Your task to perform on an android device: manage bookmarks in the chrome app Image 0: 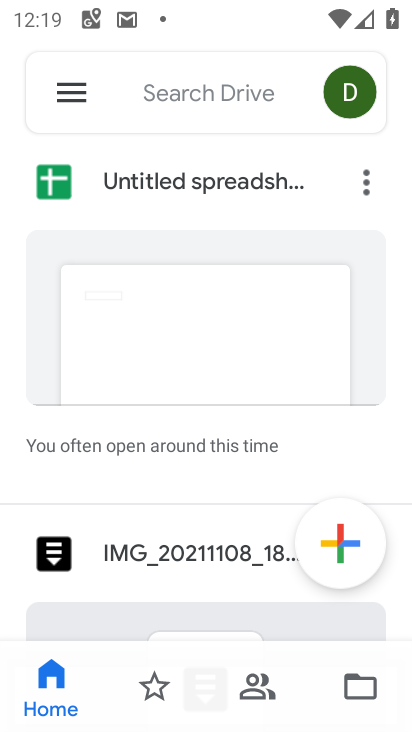
Step 0: press home button
Your task to perform on an android device: manage bookmarks in the chrome app Image 1: 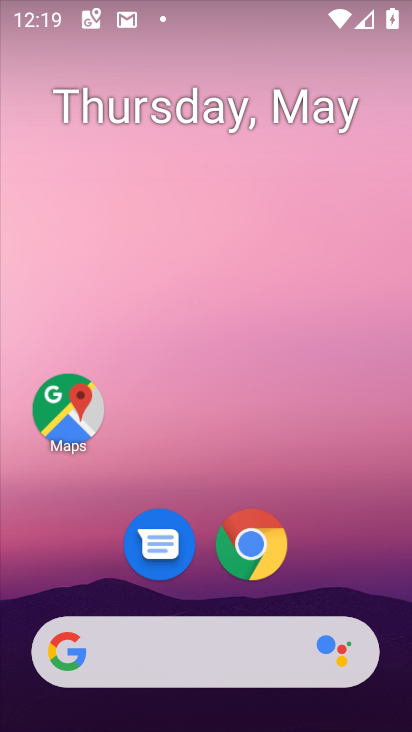
Step 1: click (225, 539)
Your task to perform on an android device: manage bookmarks in the chrome app Image 2: 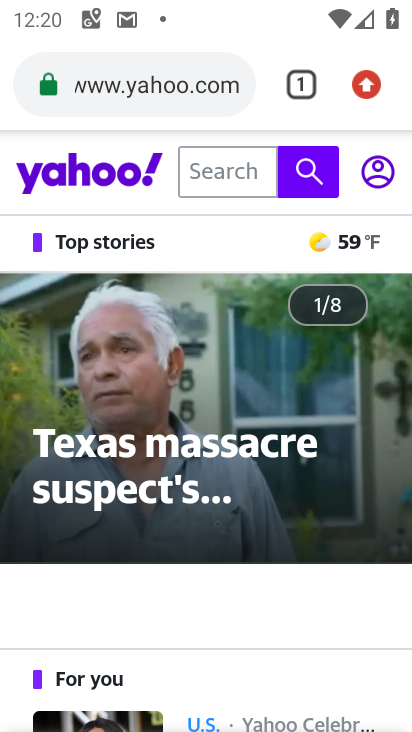
Step 2: click (371, 81)
Your task to perform on an android device: manage bookmarks in the chrome app Image 3: 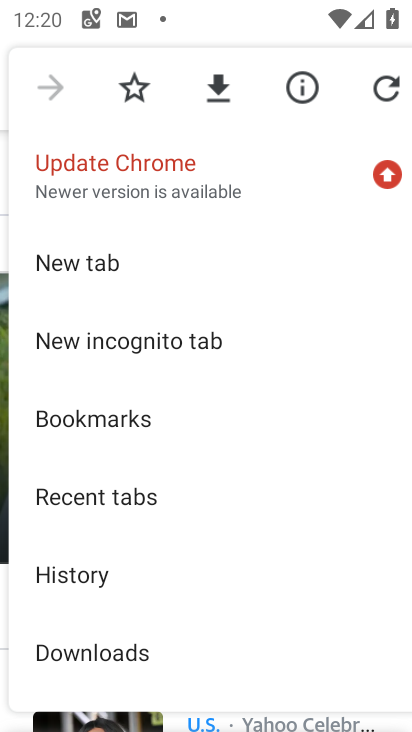
Step 3: click (242, 416)
Your task to perform on an android device: manage bookmarks in the chrome app Image 4: 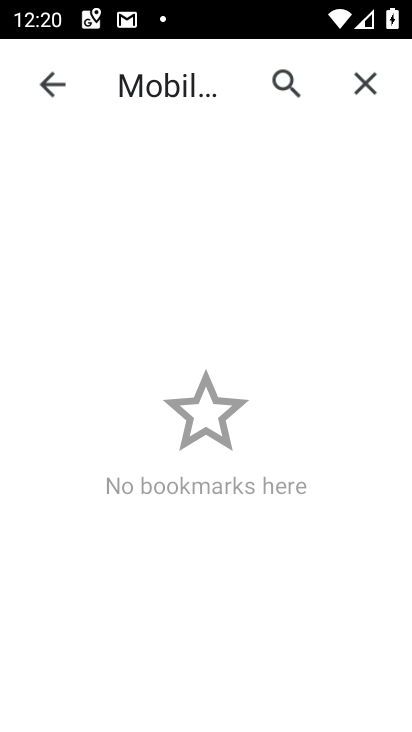
Step 4: task complete